Your task to perform on an android device: make emails show in primary in the gmail app Image 0: 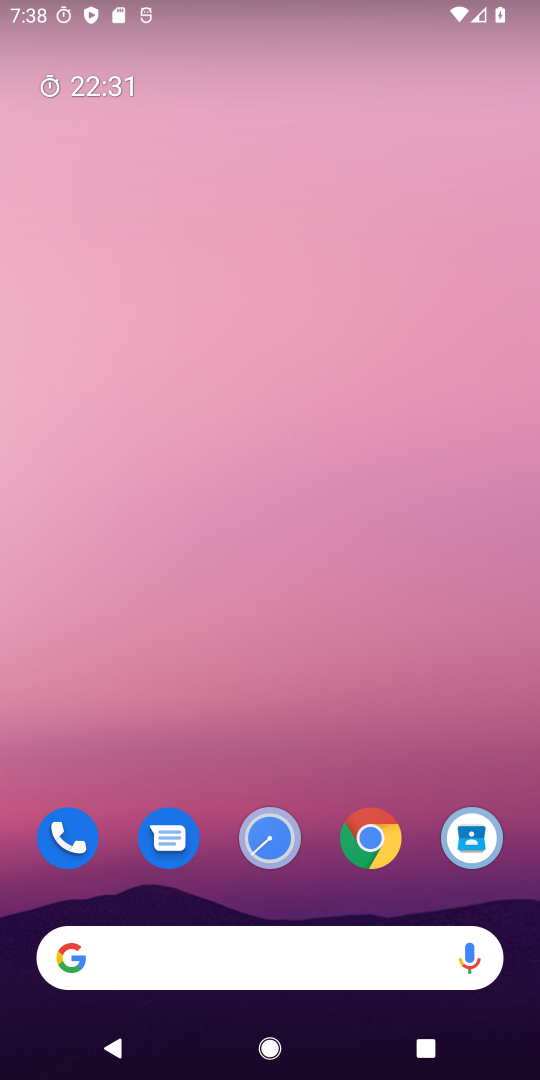
Step 0: drag from (325, 664) to (455, 20)
Your task to perform on an android device: make emails show in primary in the gmail app Image 1: 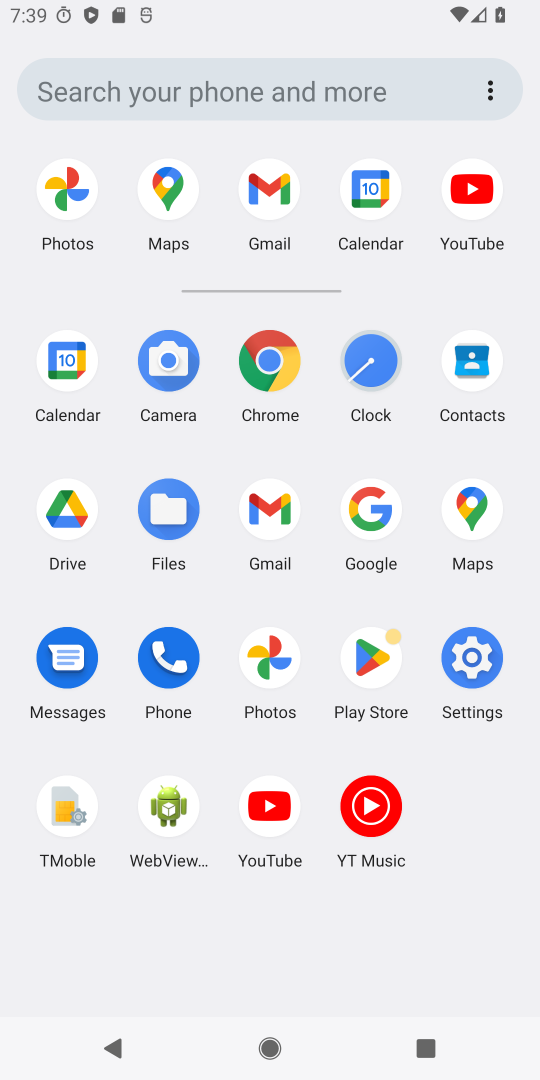
Step 1: click (276, 508)
Your task to perform on an android device: make emails show in primary in the gmail app Image 2: 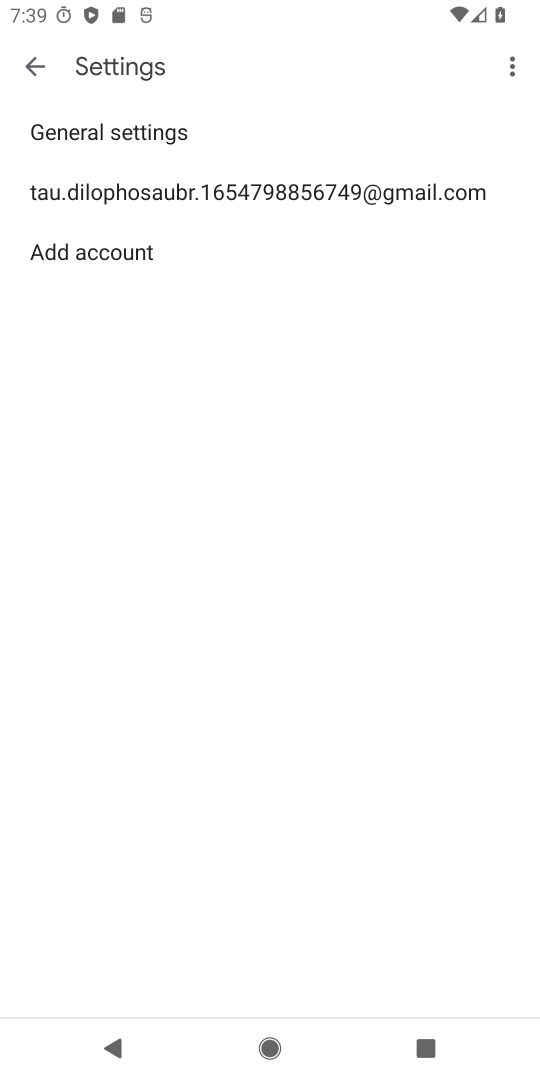
Step 2: click (138, 184)
Your task to perform on an android device: make emails show in primary in the gmail app Image 3: 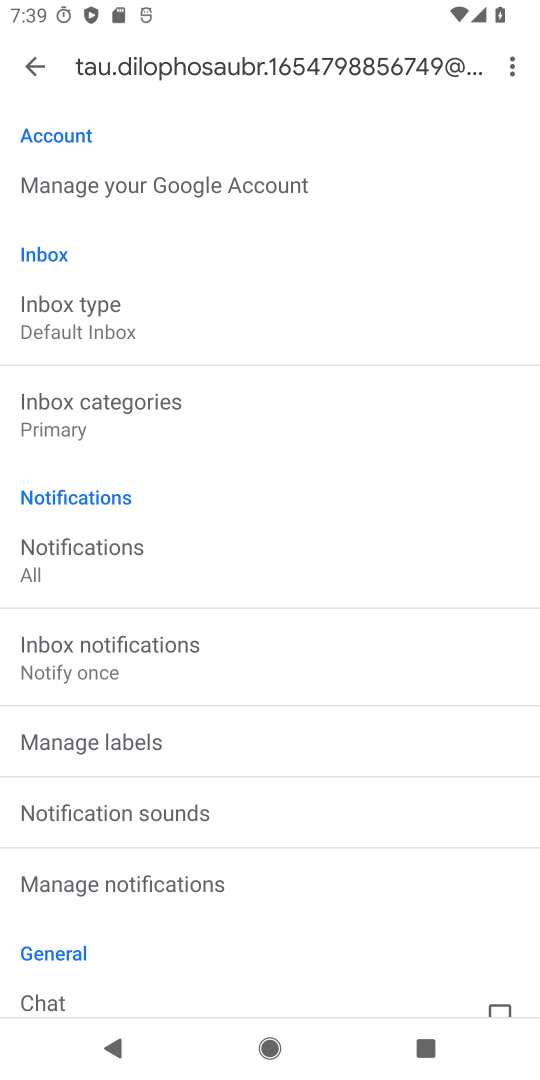
Step 3: click (67, 408)
Your task to perform on an android device: make emails show in primary in the gmail app Image 4: 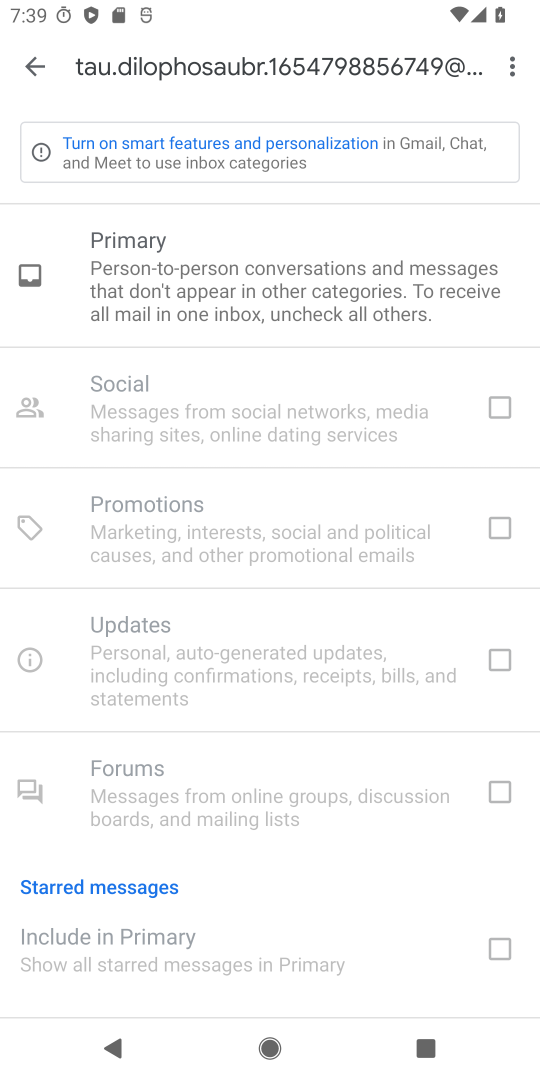
Step 4: click (101, 271)
Your task to perform on an android device: make emails show in primary in the gmail app Image 5: 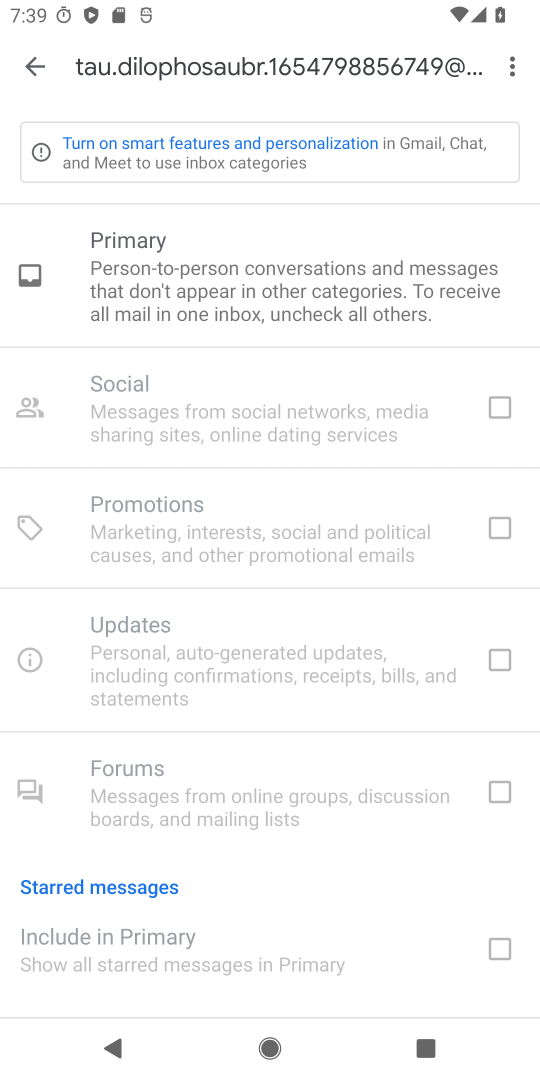
Step 5: task complete